Your task to perform on an android device: open app "Gboard" Image 0: 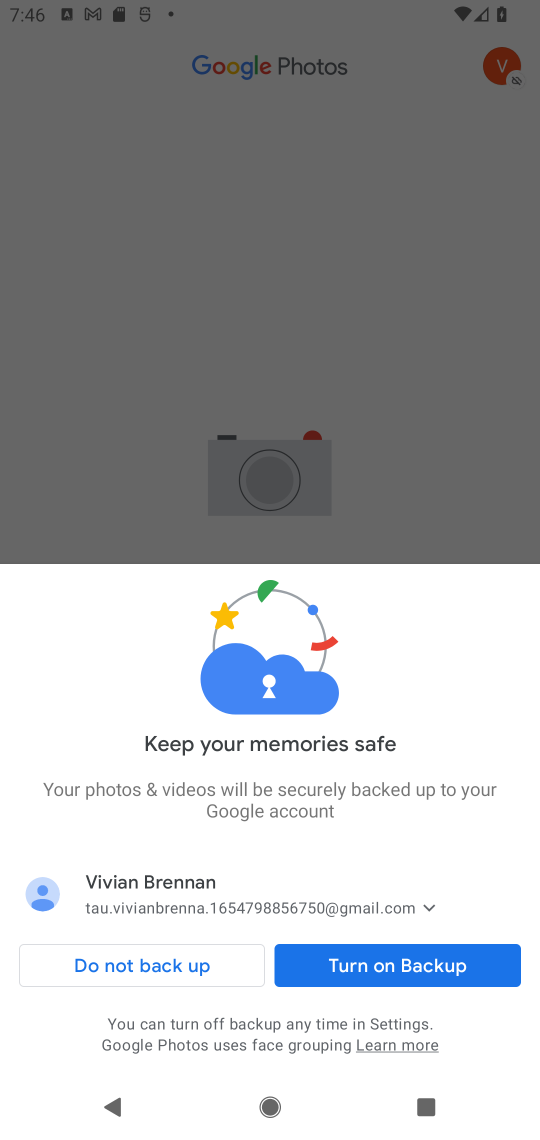
Step 0: press back button
Your task to perform on an android device: open app "Gboard" Image 1: 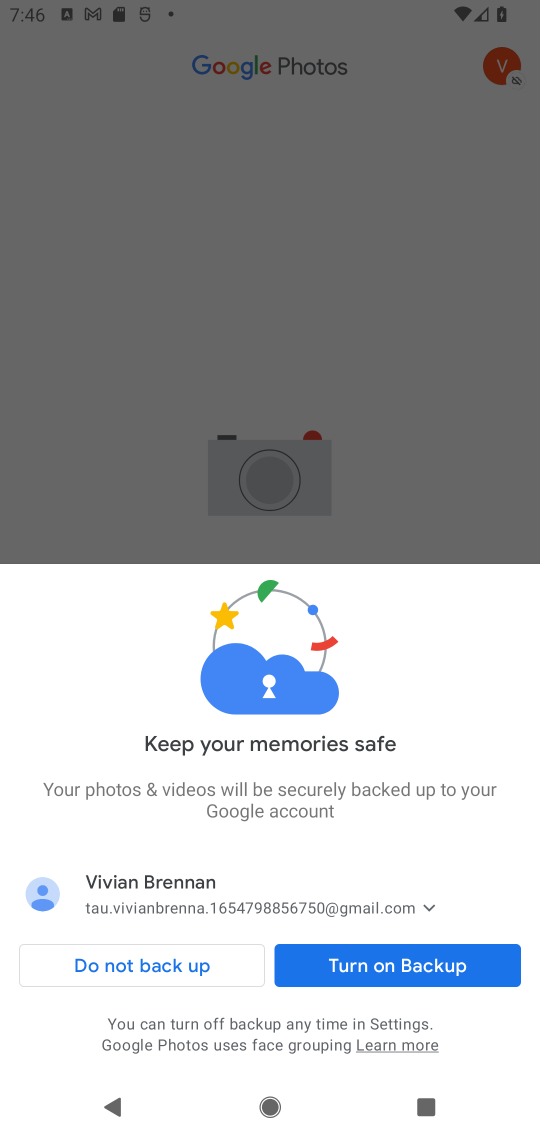
Step 1: press home button
Your task to perform on an android device: open app "Gboard" Image 2: 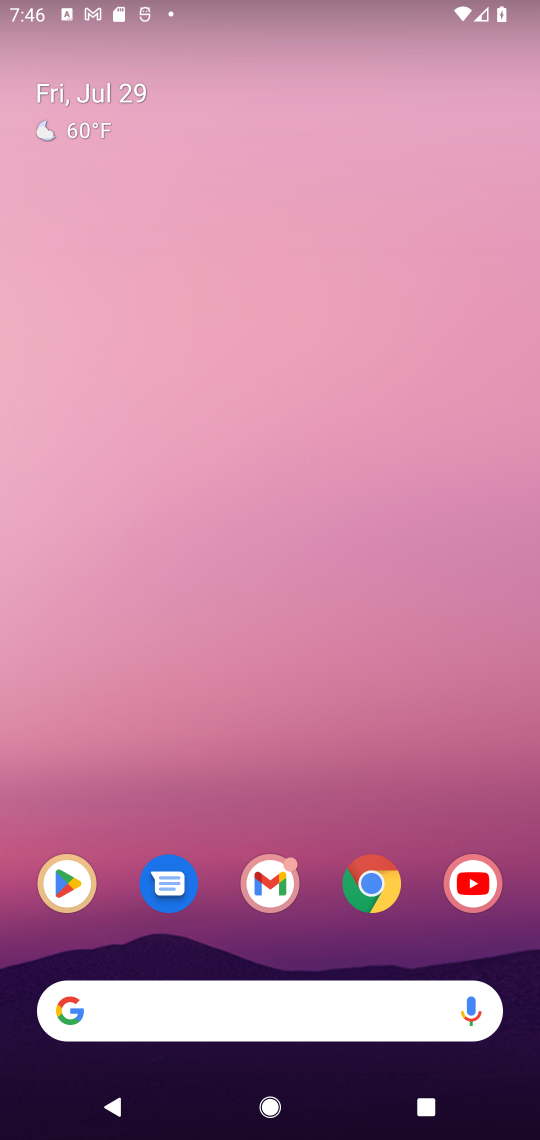
Step 2: click (68, 881)
Your task to perform on an android device: open app "Gboard" Image 3: 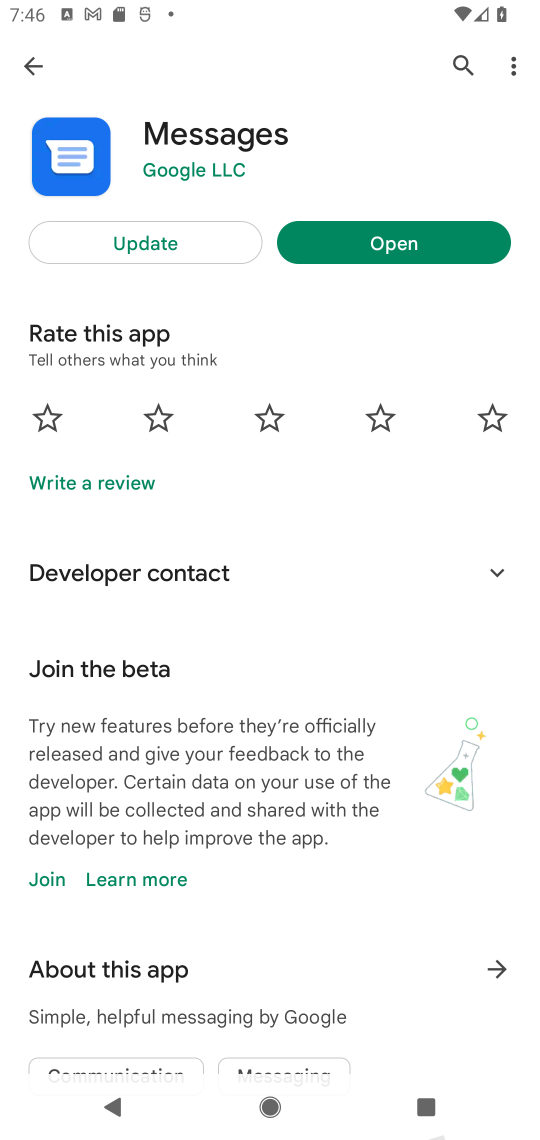
Step 3: click (460, 62)
Your task to perform on an android device: open app "Gboard" Image 4: 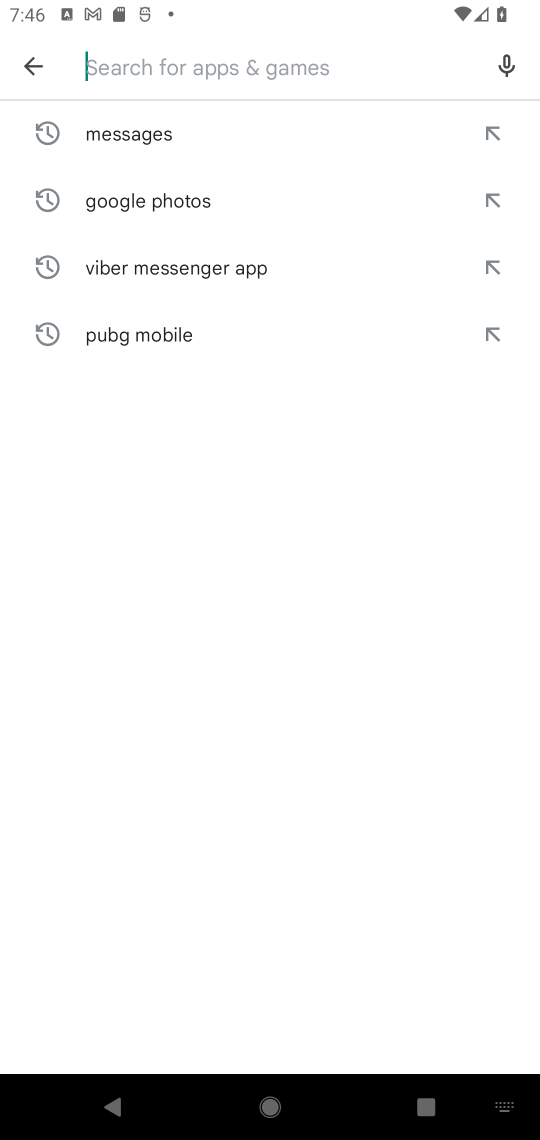
Step 4: click (142, 64)
Your task to perform on an android device: open app "Gboard" Image 5: 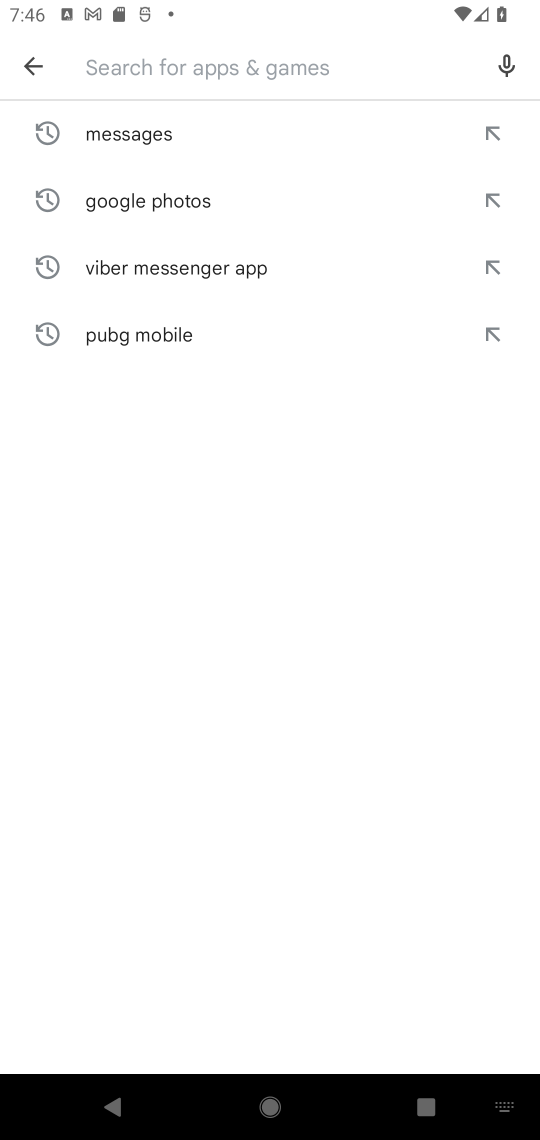
Step 5: type "gboard"
Your task to perform on an android device: open app "Gboard" Image 6: 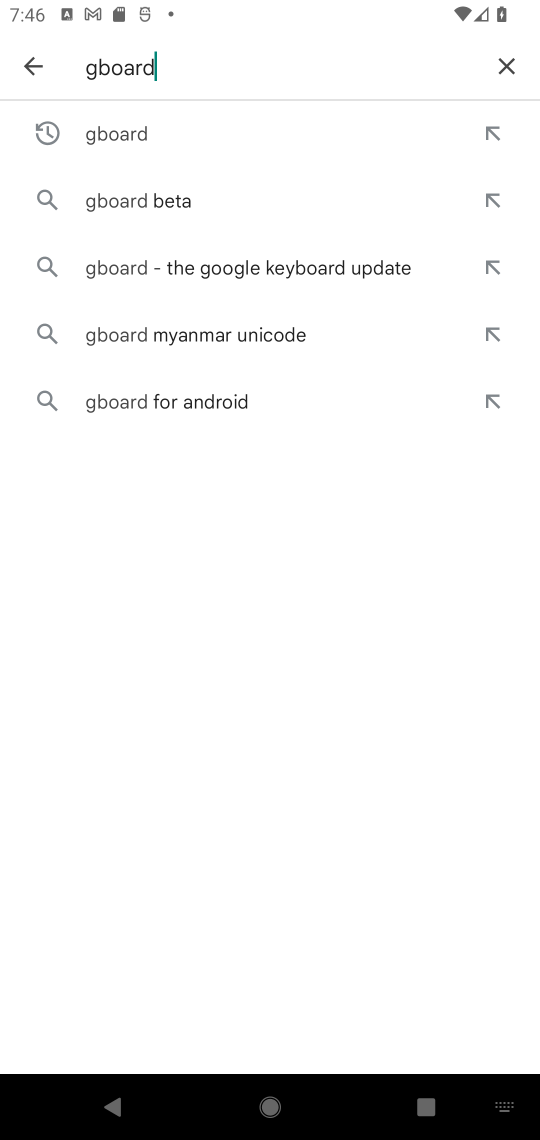
Step 6: click (161, 125)
Your task to perform on an android device: open app "Gboard" Image 7: 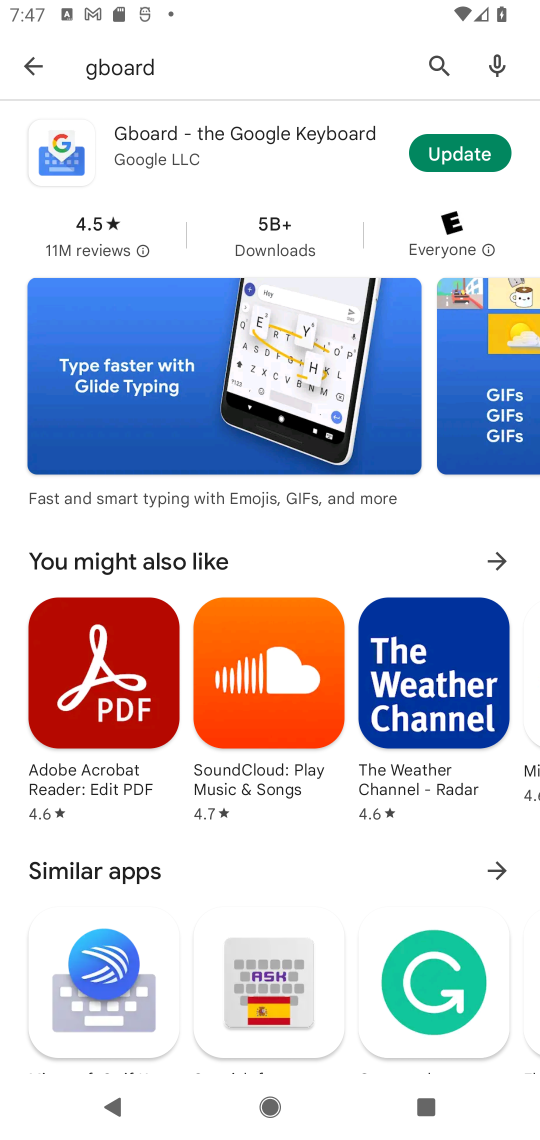
Step 7: click (234, 154)
Your task to perform on an android device: open app "Gboard" Image 8: 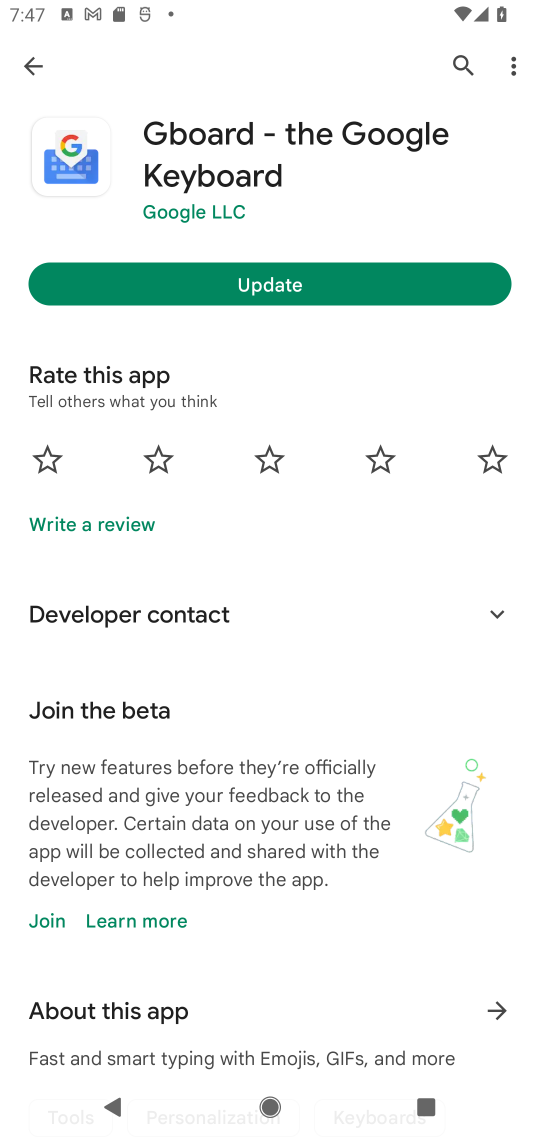
Step 8: task complete